Your task to perform on an android device: turn pop-ups off in chrome Image 0: 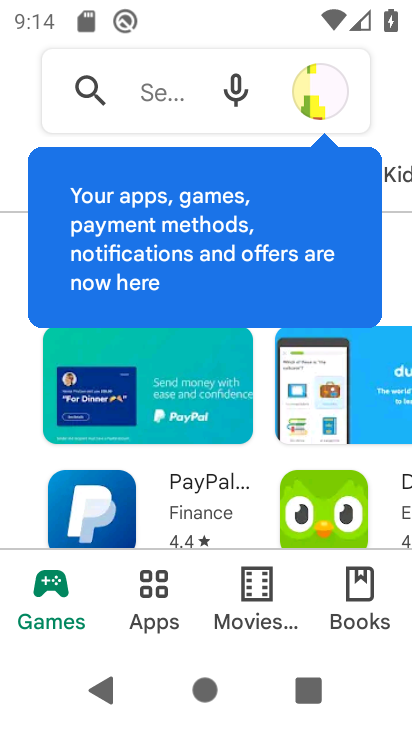
Step 0: press home button
Your task to perform on an android device: turn pop-ups off in chrome Image 1: 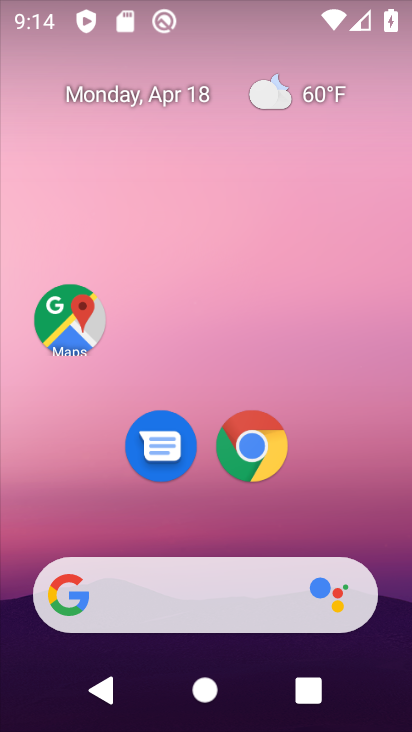
Step 1: click (273, 440)
Your task to perform on an android device: turn pop-ups off in chrome Image 2: 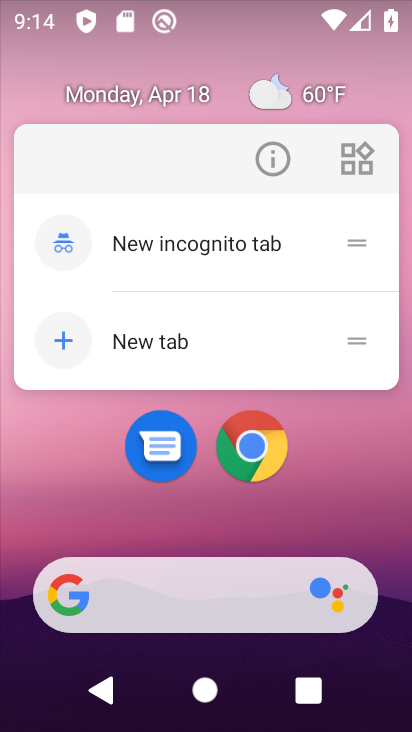
Step 2: click (265, 449)
Your task to perform on an android device: turn pop-ups off in chrome Image 3: 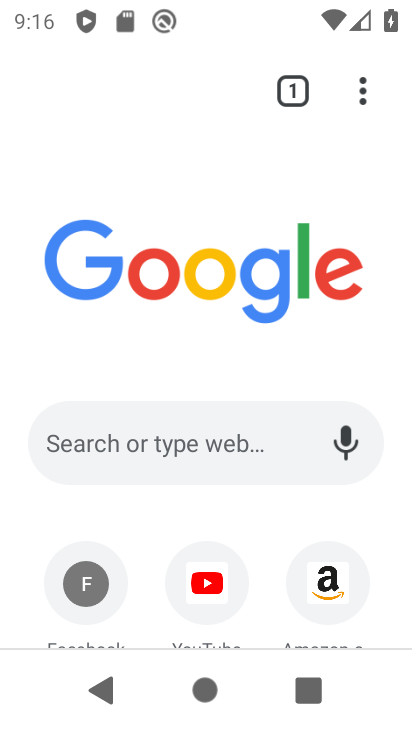
Step 3: click (366, 100)
Your task to perform on an android device: turn pop-ups off in chrome Image 4: 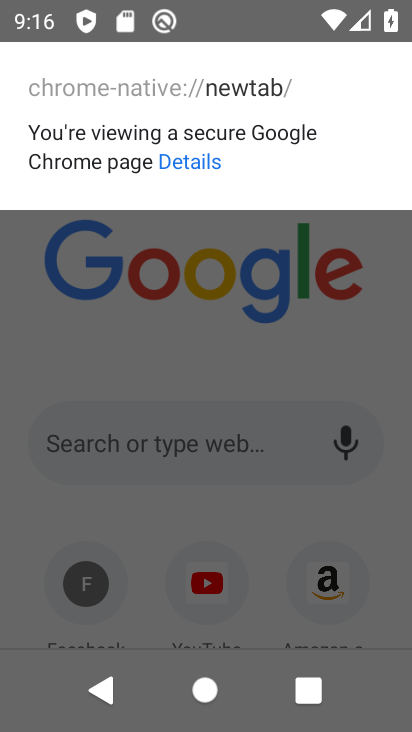
Step 4: click (338, 326)
Your task to perform on an android device: turn pop-ups off in chrome Image 5: 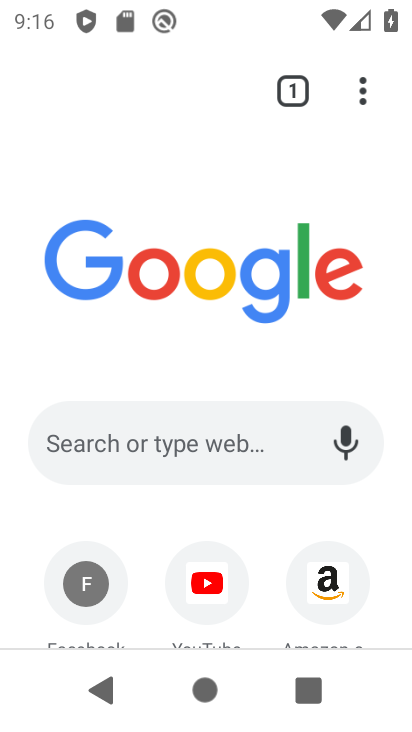
Step 5: click (356, 86)
Your task to perform on an android device: turn pop-ups off in chrome Image 6: 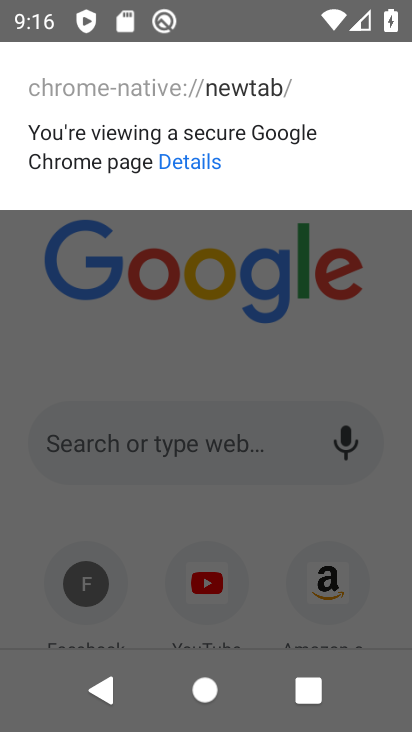
Step 6: click (309, 345)
Your task to perform on an android device: turn pop-ups off in chrome Image 7: 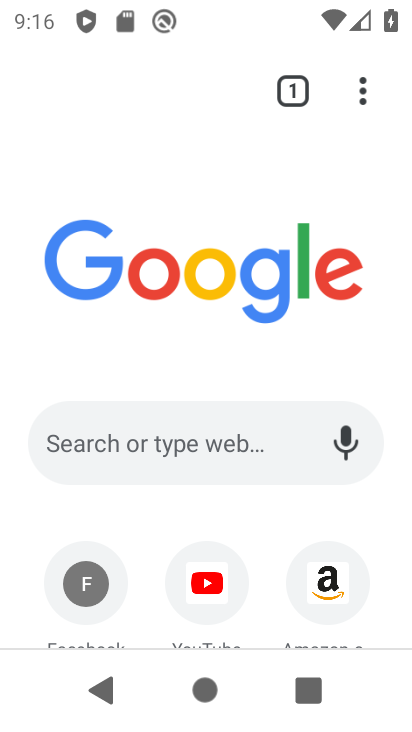
Step 7: drag from (364, 84) to (192, 477)
Your task to perform on an android device: turn pop-ups off in chrome Image 8: 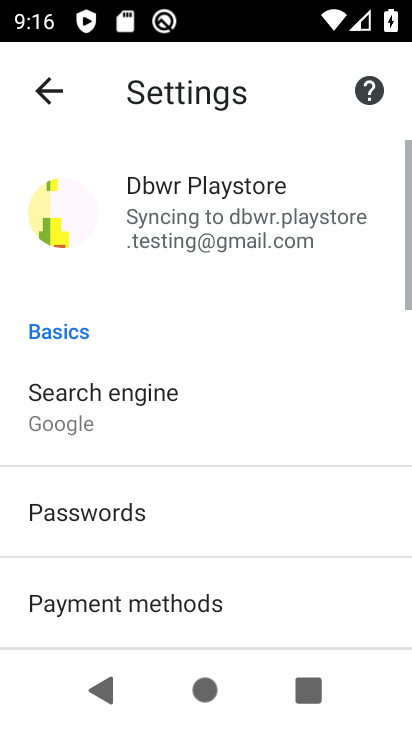
Step 8: drag from (192, 477) to (294, 59)
Your task to perform on an android device: turn pop-ups off in chrome Image 9: 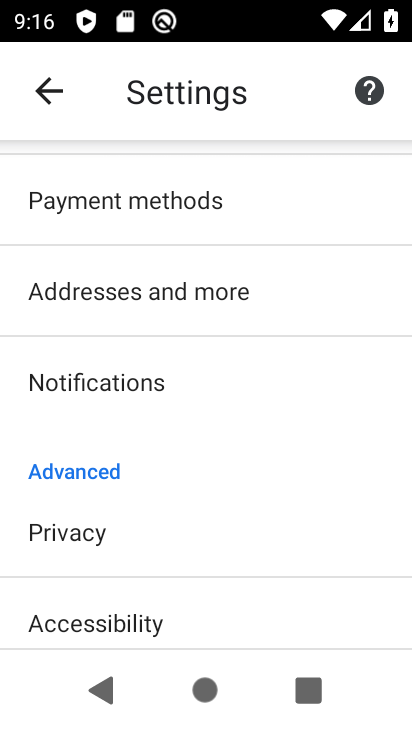
Step 9: drag from (182, 616) to (268, 145)
Your task to perform on an android device: turn pop-ups off in chrome Image 10: 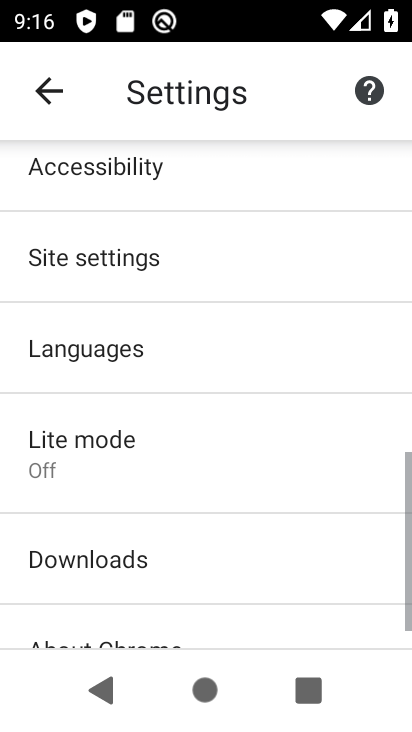
Step 10: click (231, 292)
Your task to perform on an android device: turn pop-ups off in chrome Image 11: 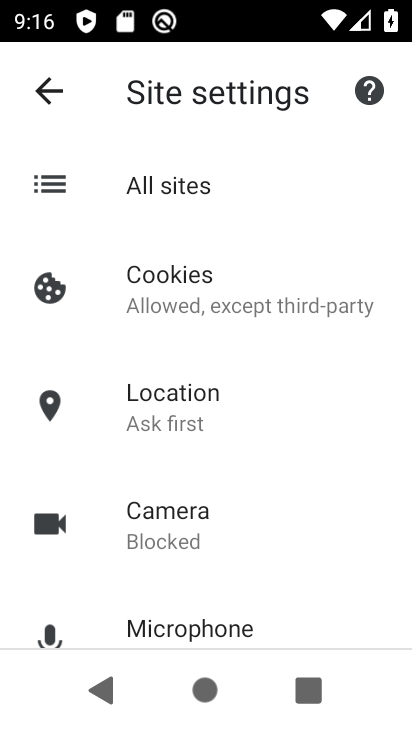
Step 11: drag from (224, 504) to (235, 78)
Your task to perform on an android device: turn pop-ups off in chrome Image 12: 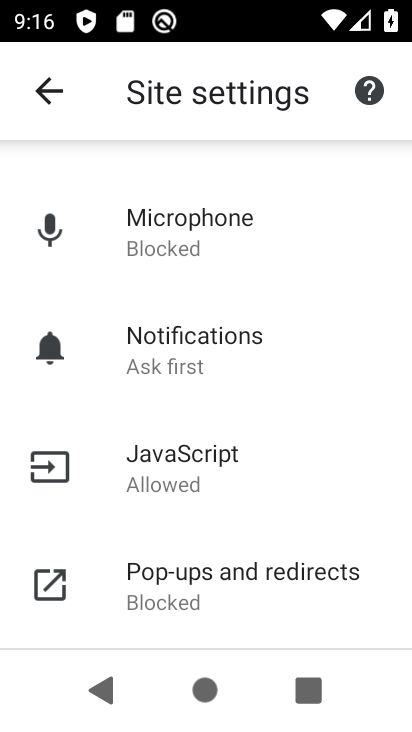
Step 12: drag from (262, 455) to (304, 65)
Your task to perform on an android device: turn pop-ups off in chrome Image 13: 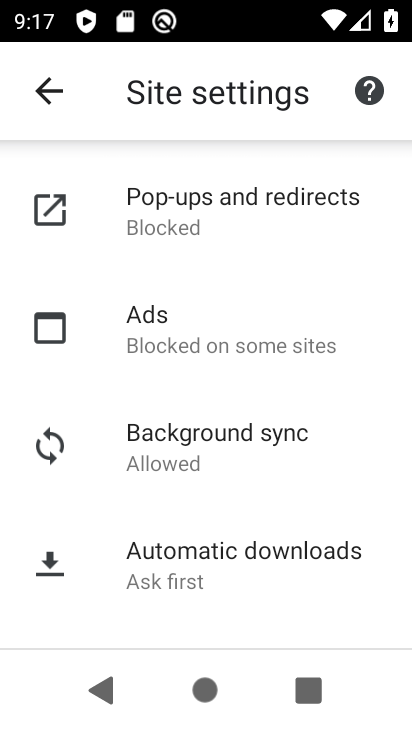
Step 13: drag from (242, 501) to (239, 371)
Your task to perform on an android device: turn pop-ups off in chrome Image 14: 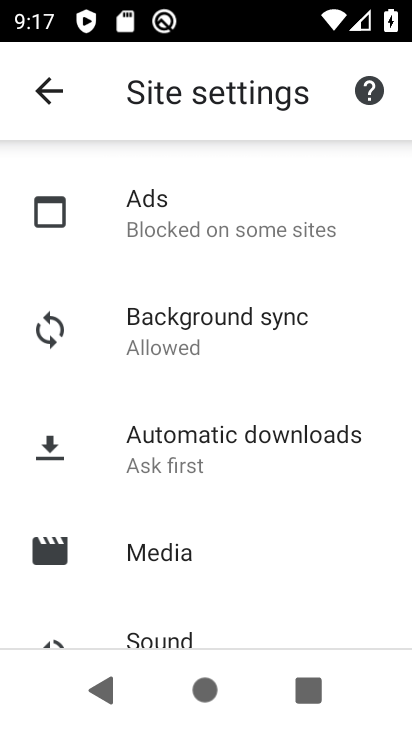
Step 14: drag from (336, 270) to (286, 409)
Your task to perform on an android device: turn pop-ups off in chrome Image 15: 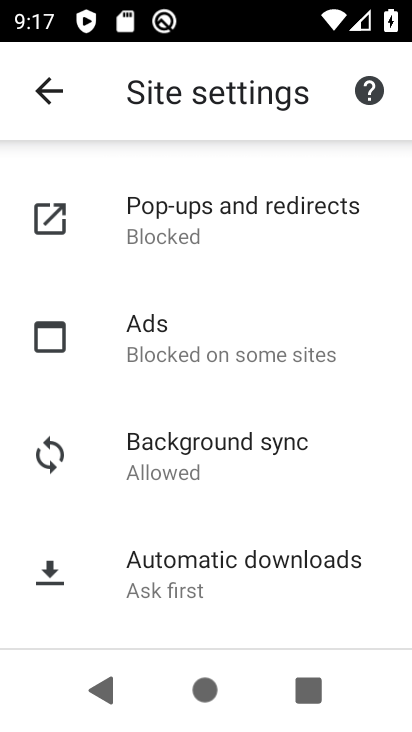
Step 15: click (298, 237)
Your task to perform on an android device: turn pop-ups off in chrome Image 16: 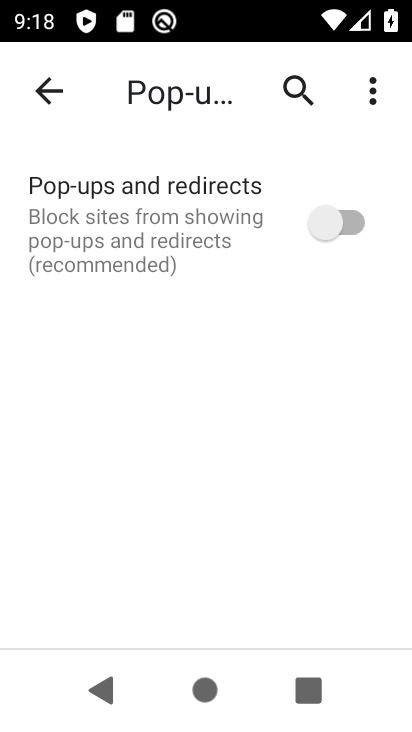
Step 16: task complete